Your task to perform on an android device: What is the news today? Image 0: 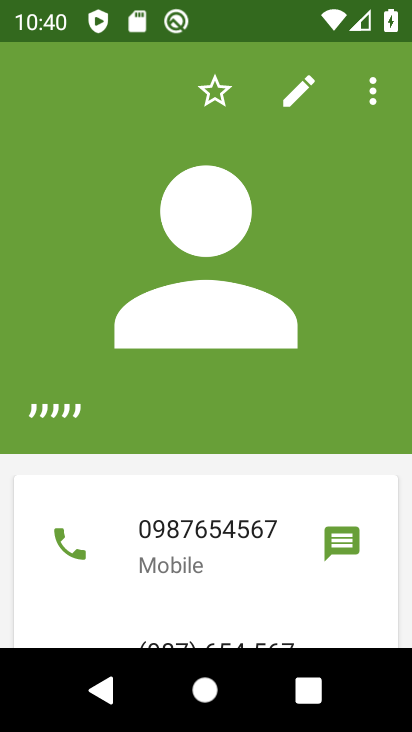
Step 0: press home button
Your task to perform on an android device: What is the news today? Image 1: 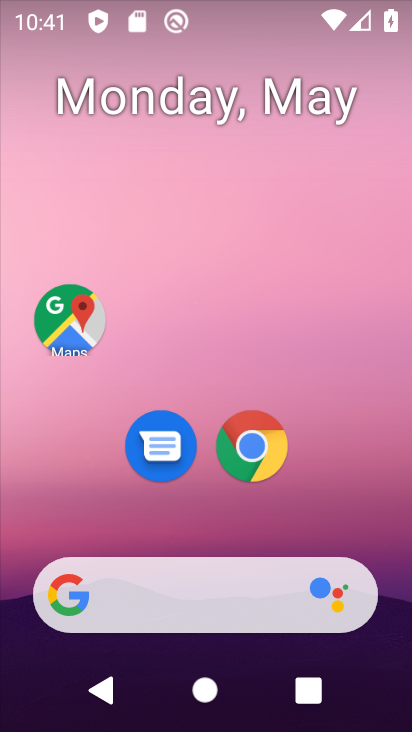
Step 1: task complete